Your task to perform on an android device: Go to eBay Image 0: 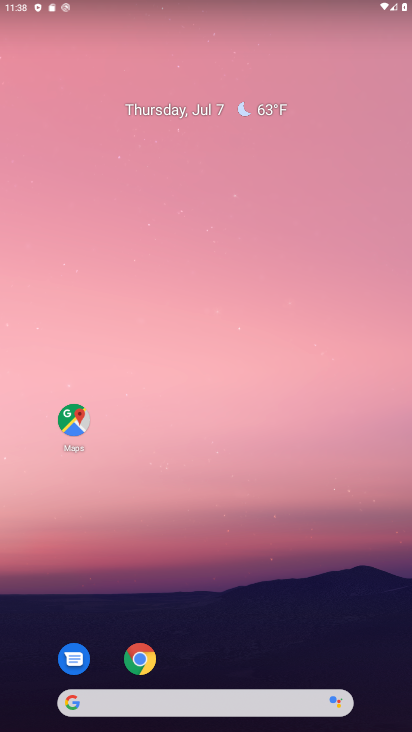
Step 0: click (144, 665)
Your task to perform on an android device: Go to eBay Image 1: 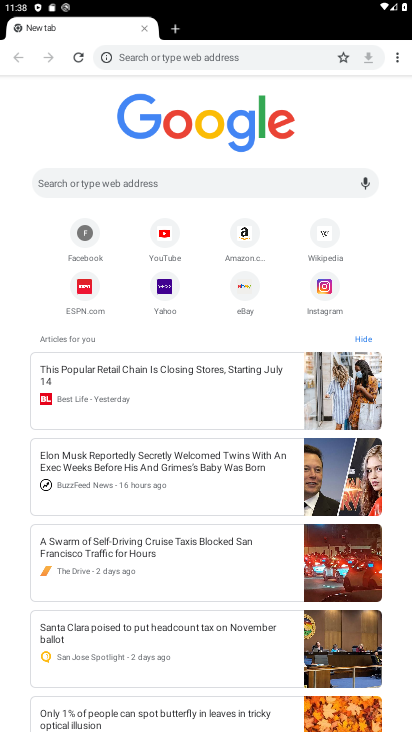
Step 1: click (249, 295)
Your task to perform on an android device: Go to eBay Image 2: 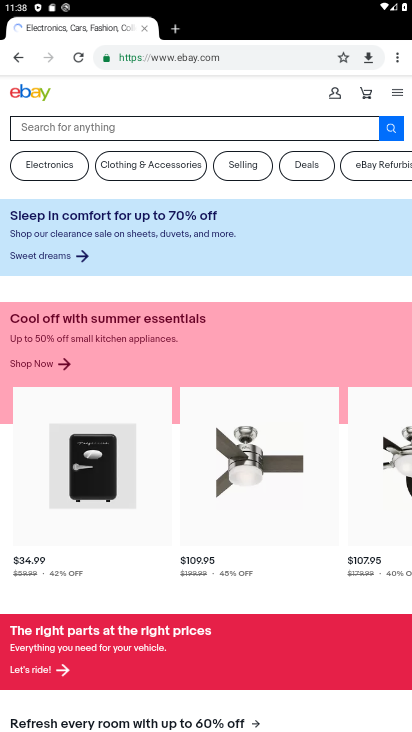
Step 2: task complete